Your task to perform on an android device: Open calendar and show me the second week of next month Image 0: 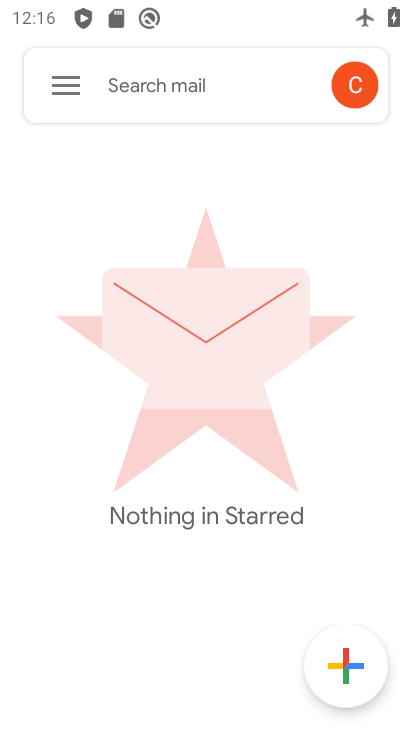
Step 0: press back button
Your task to perform on an android device: Open calendar and show me the second week of next month Image 1: 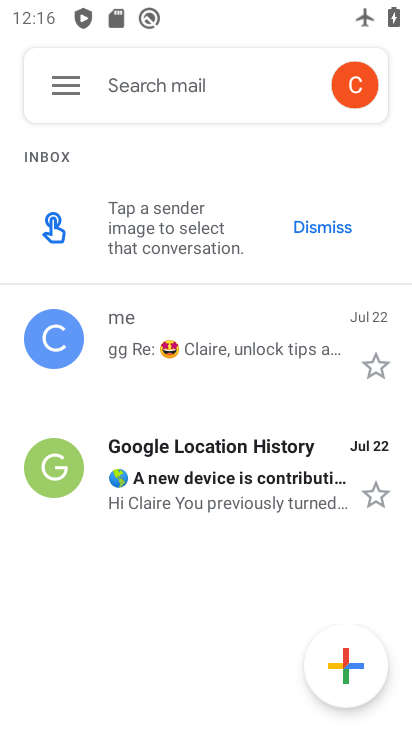
Step 1: press back button
Your task to perform on an android device: Open calendar and show me the second week of next month Image 2: 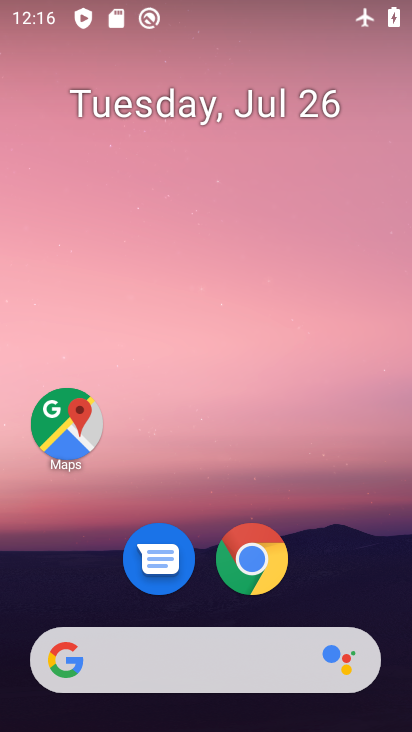
Step 2: drag from (92, 538) to (234, 39)
Your task to perform on an android device: Open calendar and show me the second week of next month Image 3: 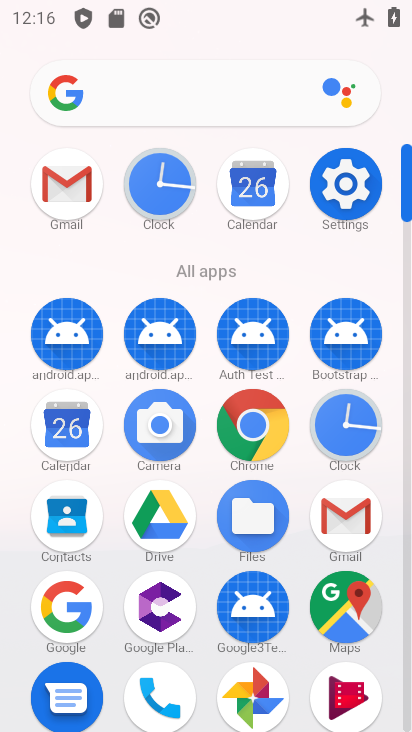
Step 3: click (55, 430)
Your task to perform on an android device: Open calendar and show me the second week of next month Image 4: 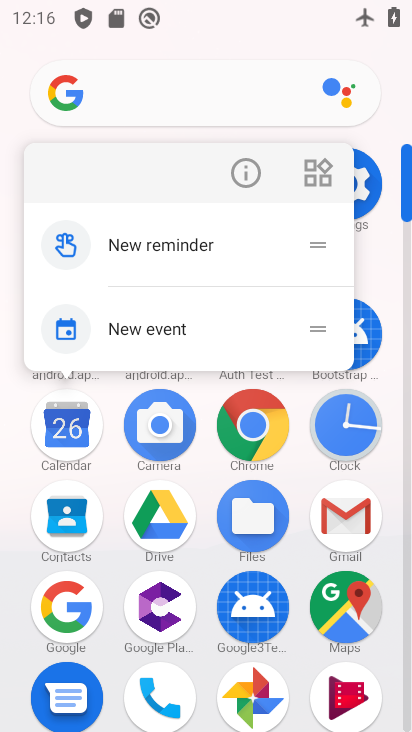
Step 4: click (62, 426)
Your task to perform on an android device: Open calendar and show me the second week of next month Image 5: 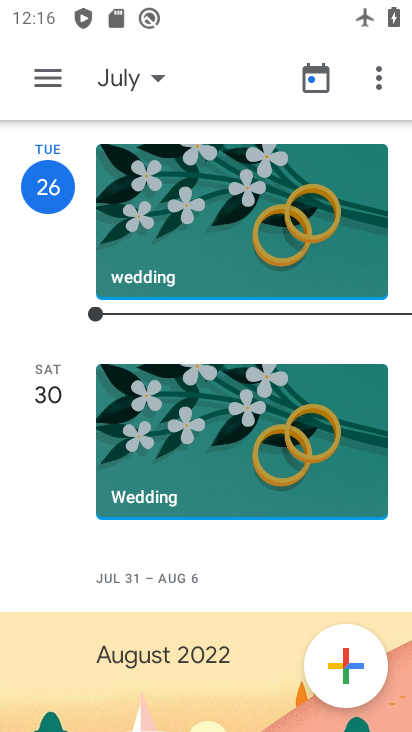
Step 5: click (142, 76)
Your task to perform on an android device: Open calendar and show me the second week of next month Image 6: 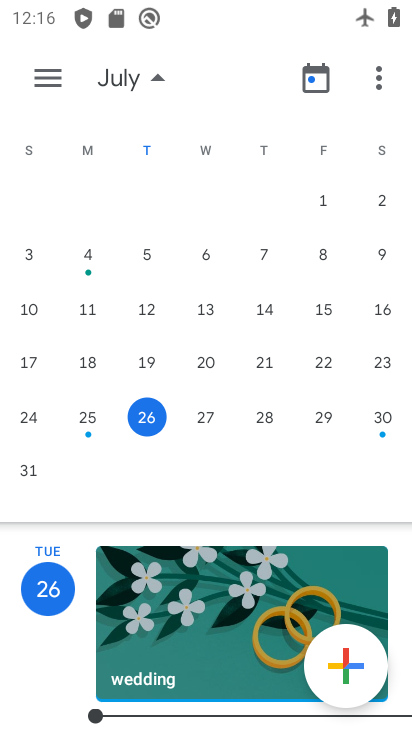
Step 6: drag from (387, 361) to (25, 336)
Your task to perform on an android device: Open calendar and show me the second week of next month Image 7: 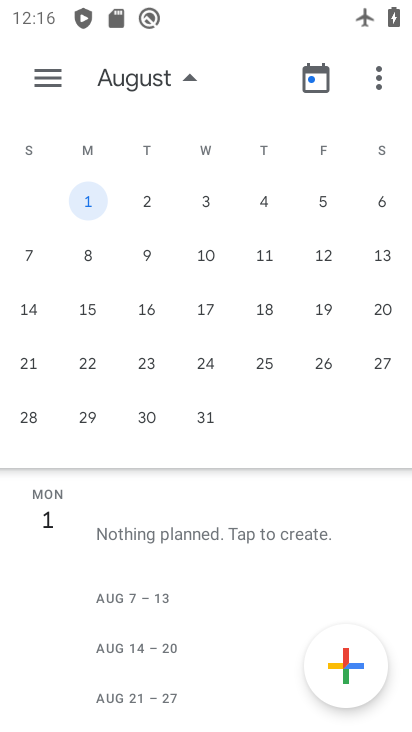
Step 7: click (93, 251)
Your task to perform on an android device: Open calendar and show me the second week of next month Image 8: 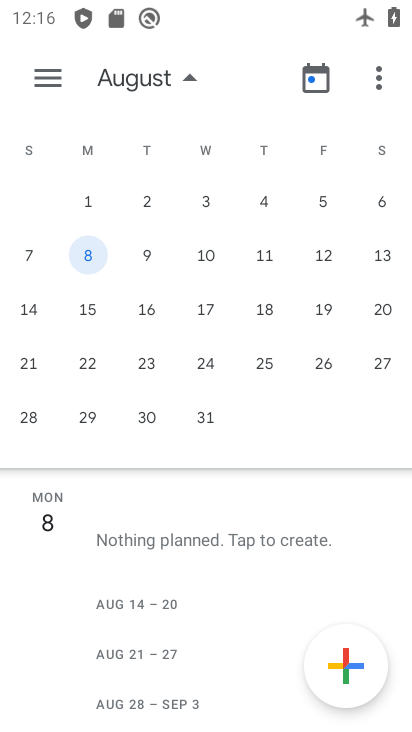
Step 8: task complete